Your task to perform on an android device: View the shopping cart on bestbuy.com. Add "razer blade" to the cart on bestbuy.com Image 0: 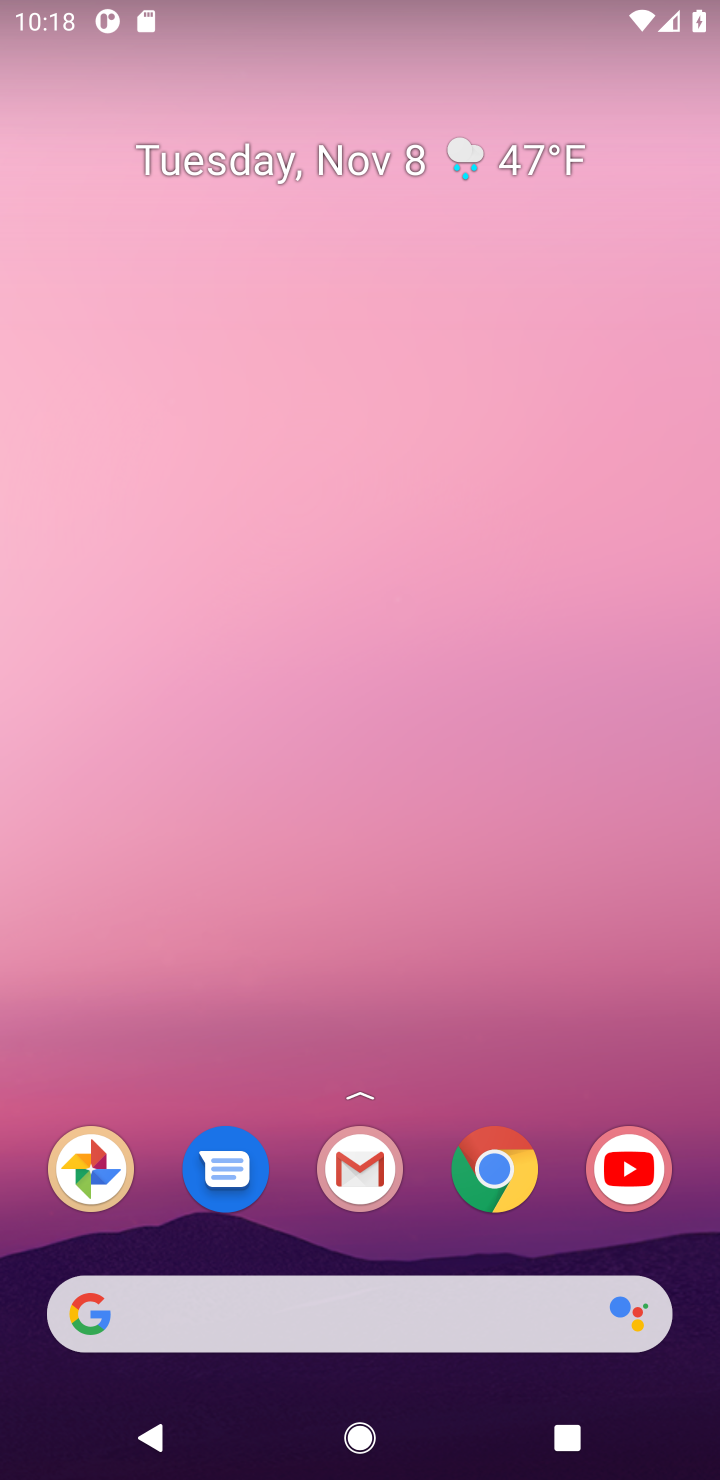
Step 0: click (485, 1164)
Your task to perform on an android device: View the shopping cart on bestbuy.com. Add "razer blade" to the cart on bestbuy.com Image 1: 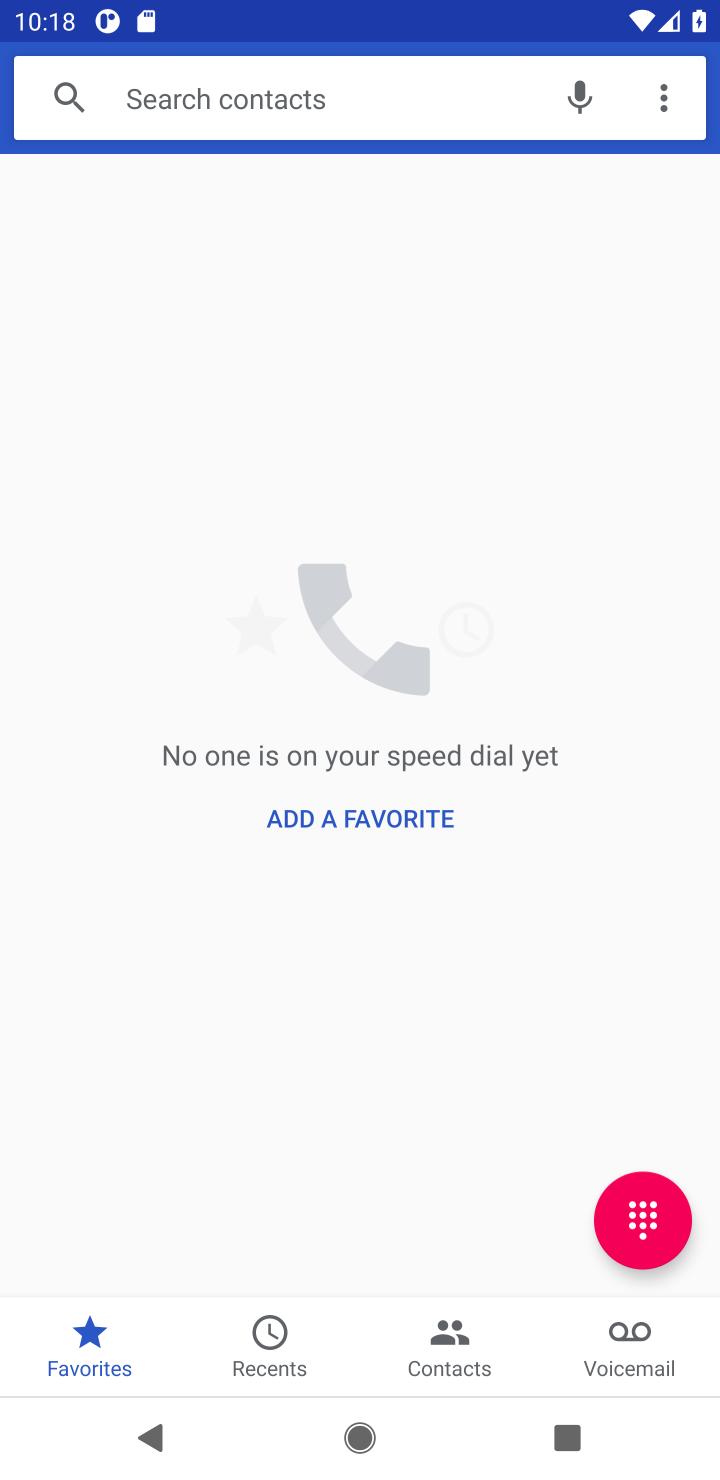
Step 1: press home button
Your task to perform on an android device: View the shopping cart on bestbuy.com. Add "razer blade" to the cart on bestbuy.com Image 2: 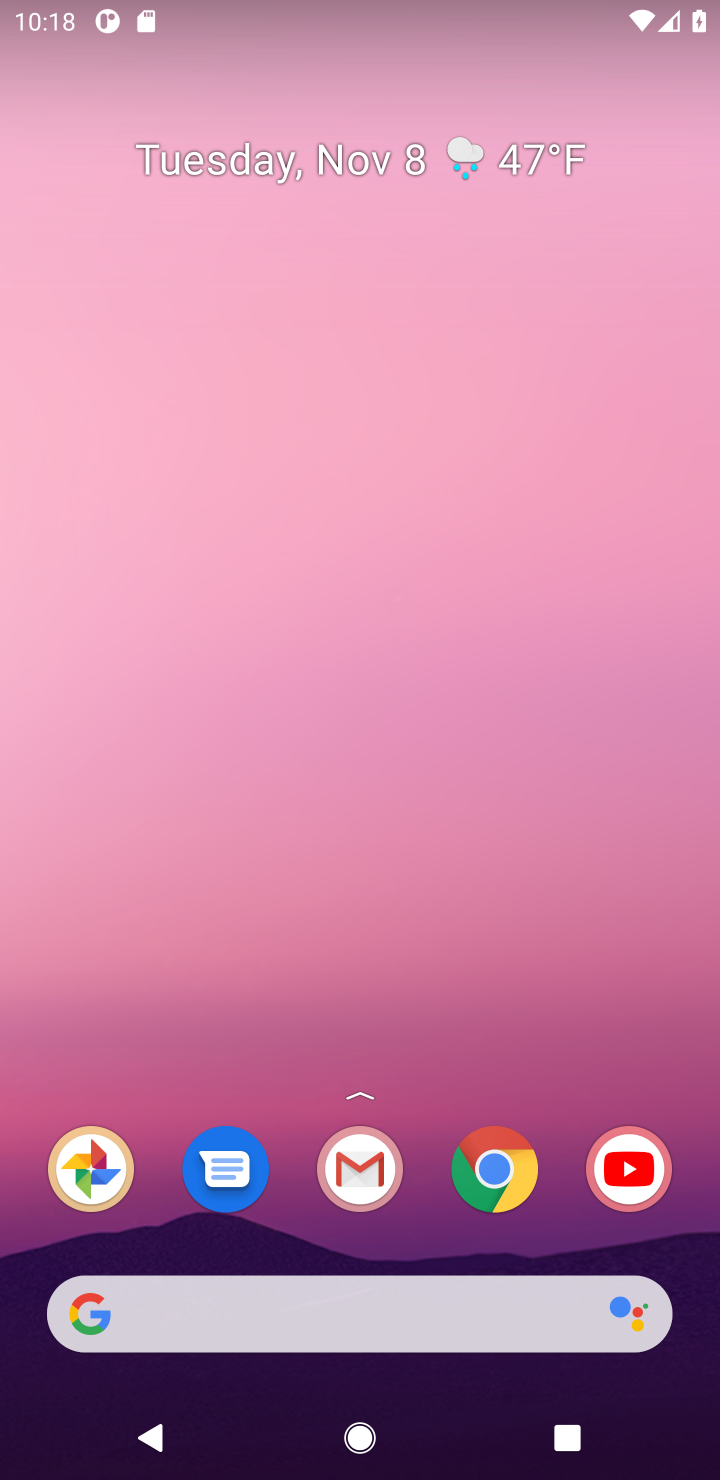
Step 2: click (498, 1154)
Your task to perform on an android device: View the shopping cart on bestbuy.com. Add "razer blade" to the cart on bestbuy.com Image 3: 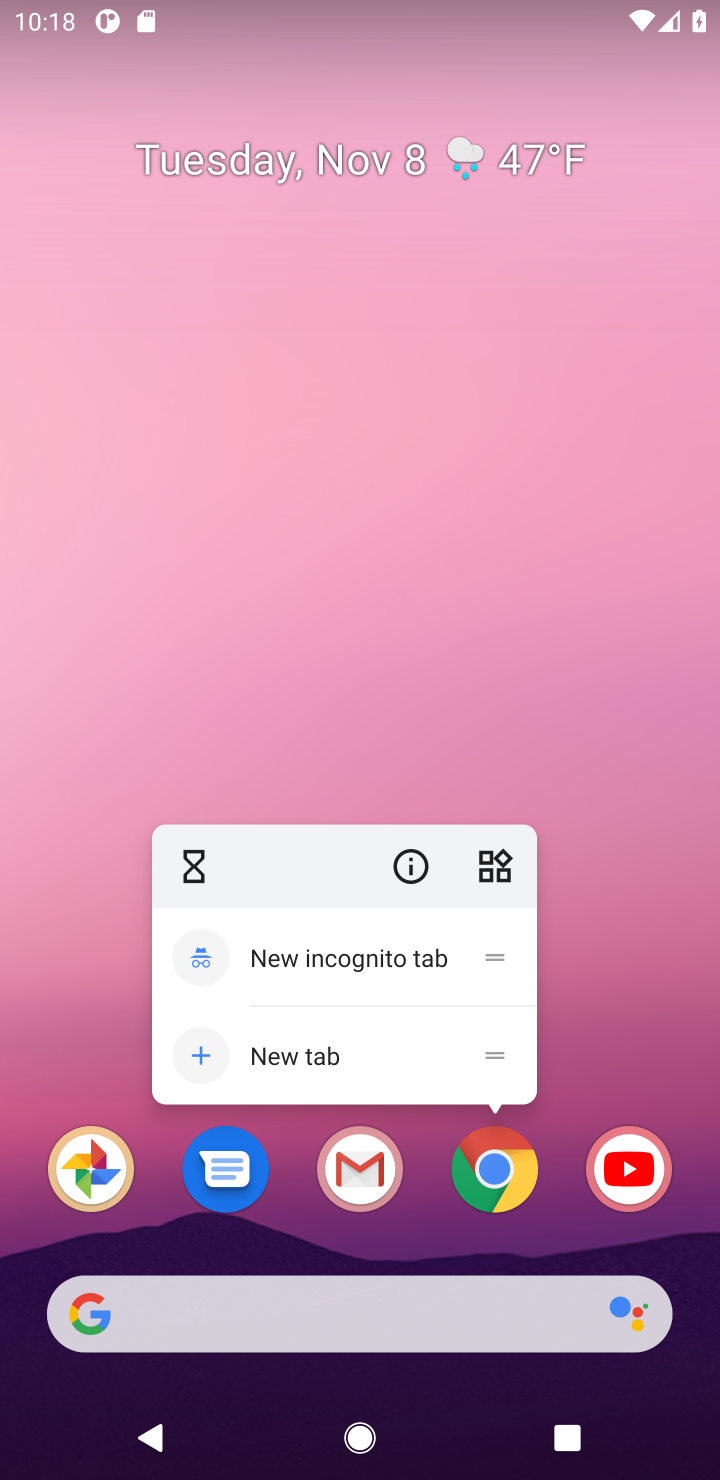
Step 3: click (498, 1154)
Your task to perform on an android device: View the shopping cart on bestbuy.com. Add "razer blade" to the cart on bestbuy.com Image 4: 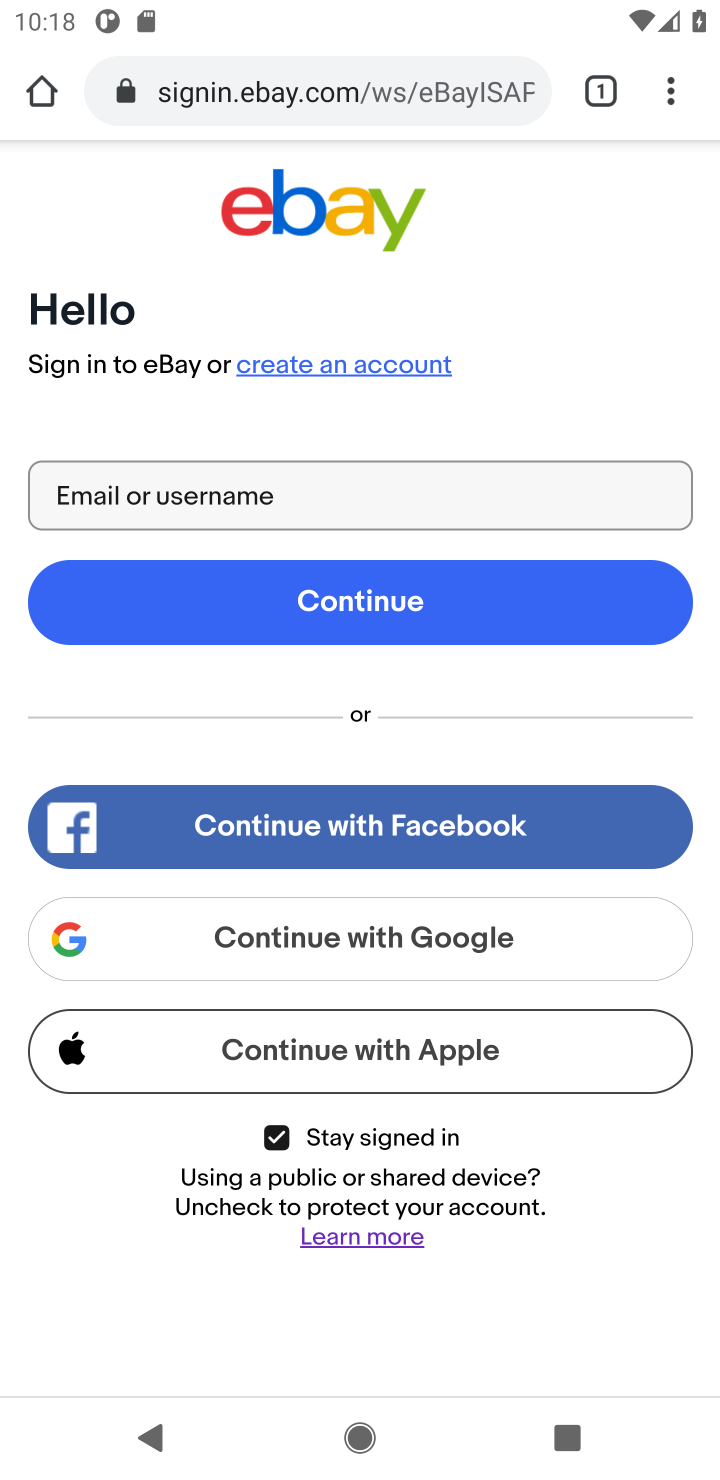
Step 4: click (287, 97)
Your task to perform on an android device: View the shopping cart on bestbuy.com. Add "razer blade" to the cart on bestbuy.com Image 5: 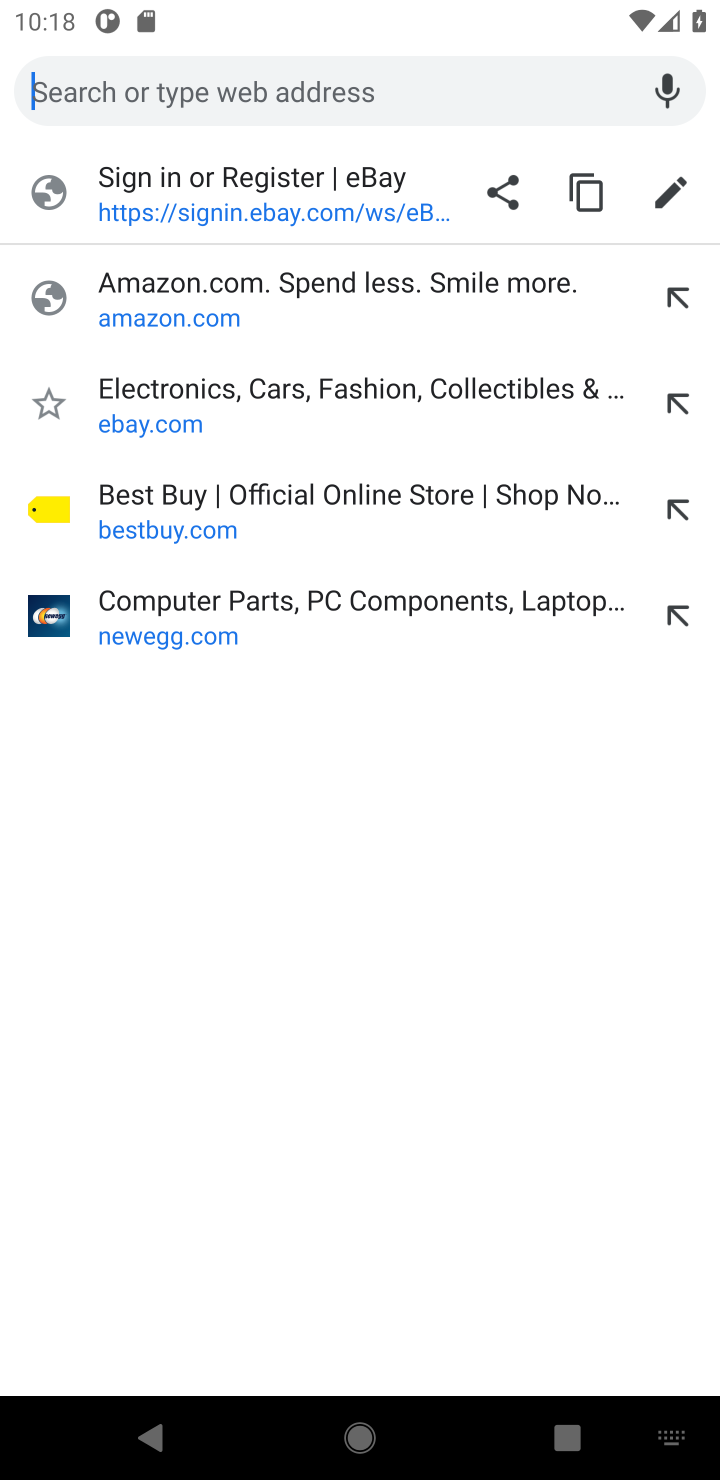
Step 5: type "bestbuy.com"
Your task to perform on an android device: View the shopping cart on bestbuy.com. Add "razer blade" to the cart on bestbuy.com Image 6: 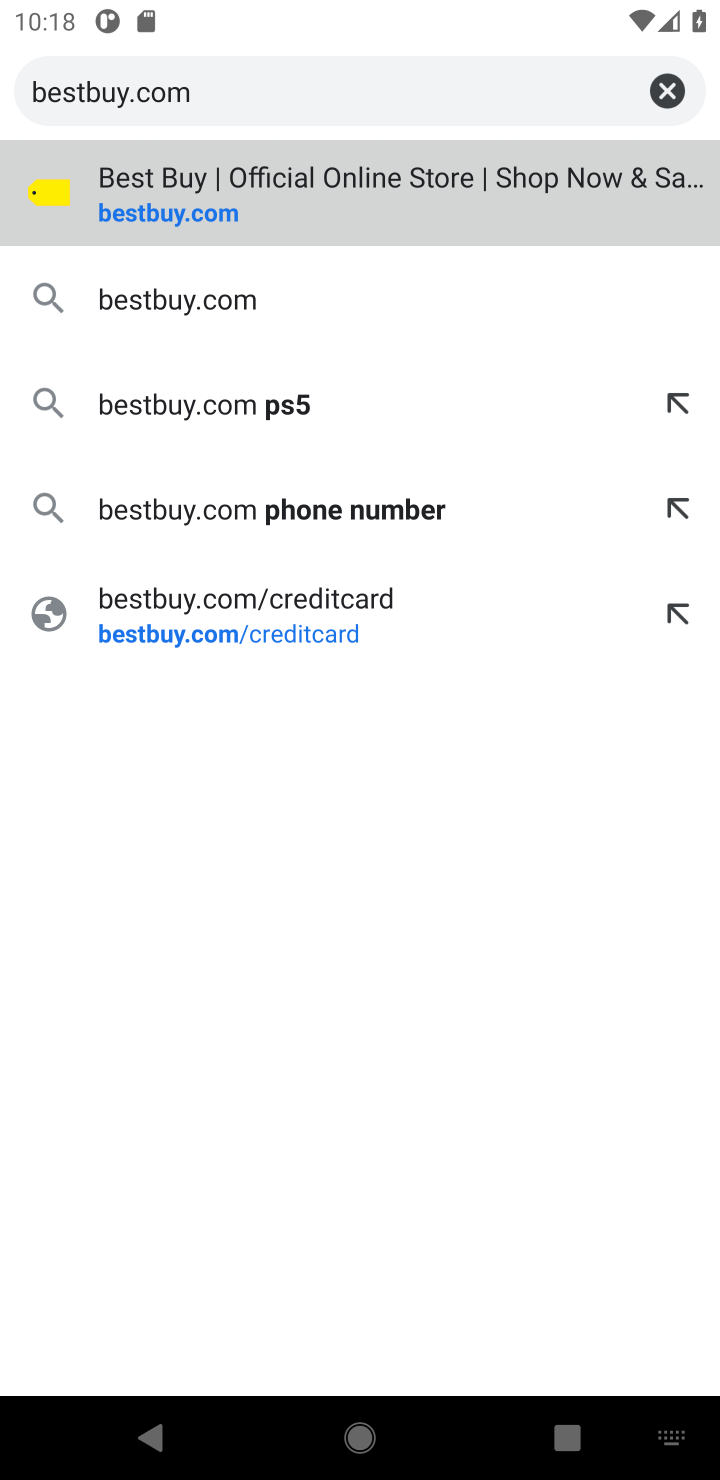
Step 6: press enter
Your task to perform on an android device: View the shopping cart on bestbuy.com. Add "razer blade" to the cart on bestbuy.com Image 7: 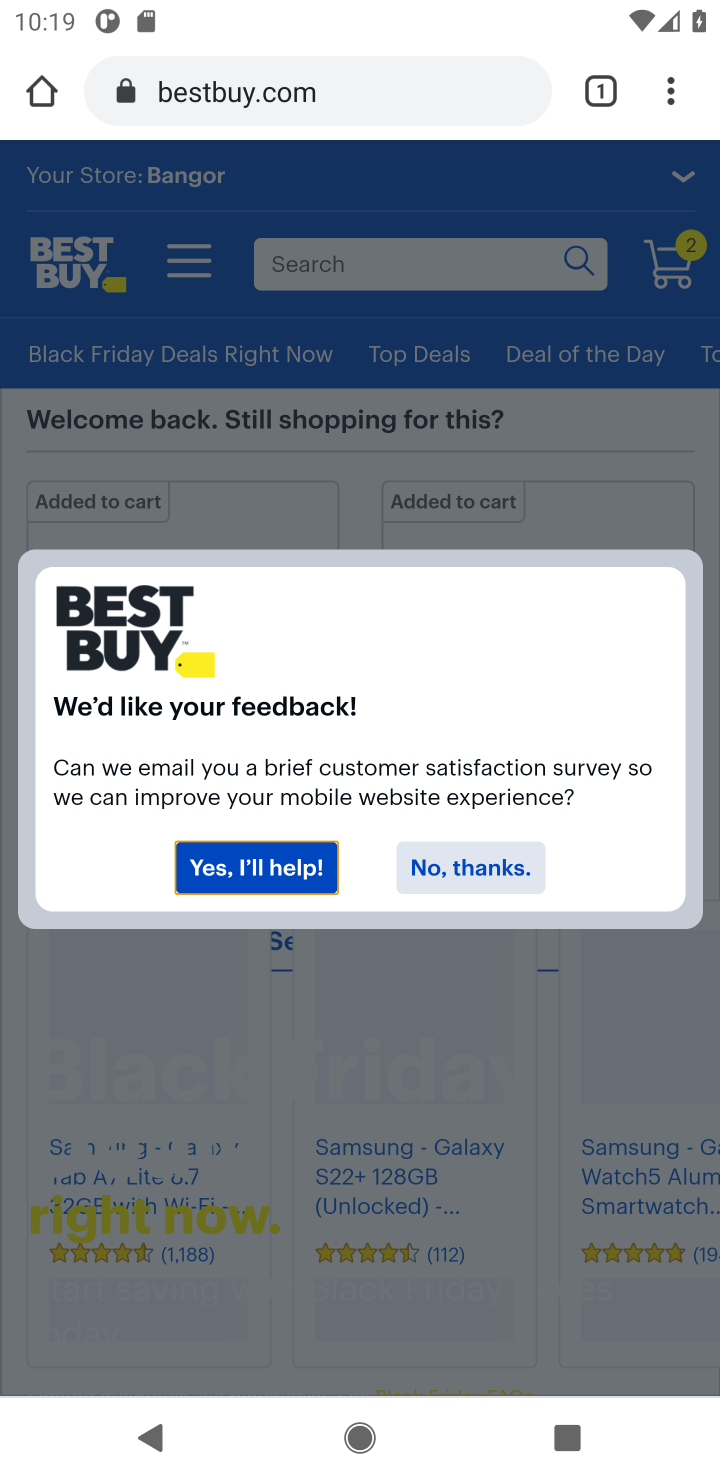
Step 7: click (459, 880)
Your task to perform on an android device: View the shopping cart on bestbuy.com. Add "razer blade" to the cart on bestbuy.com Image 8: 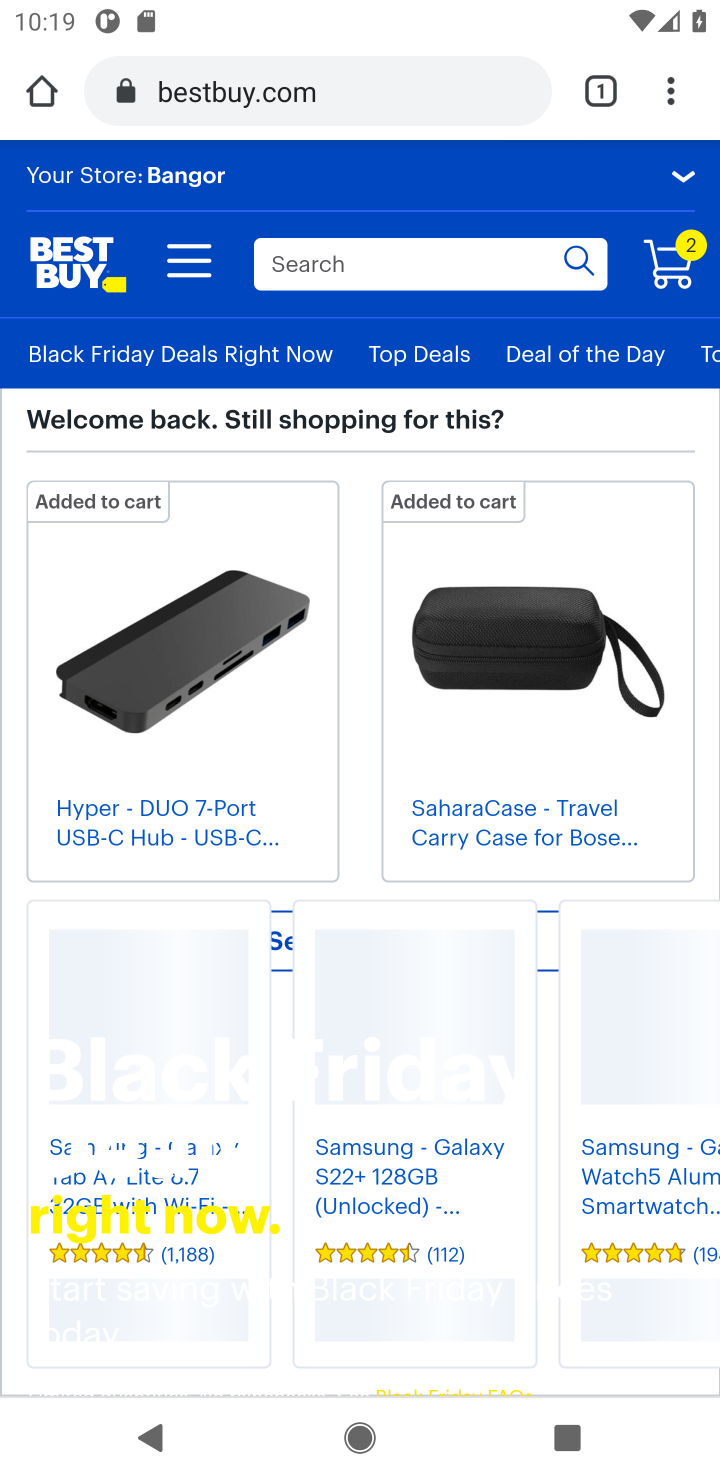
Step 8: click (473, 855)
Your task to perform on an android device: View the shopping cart on bestbuy.com. Add "razer blade" to the cart on bestbuy.com Image 9: 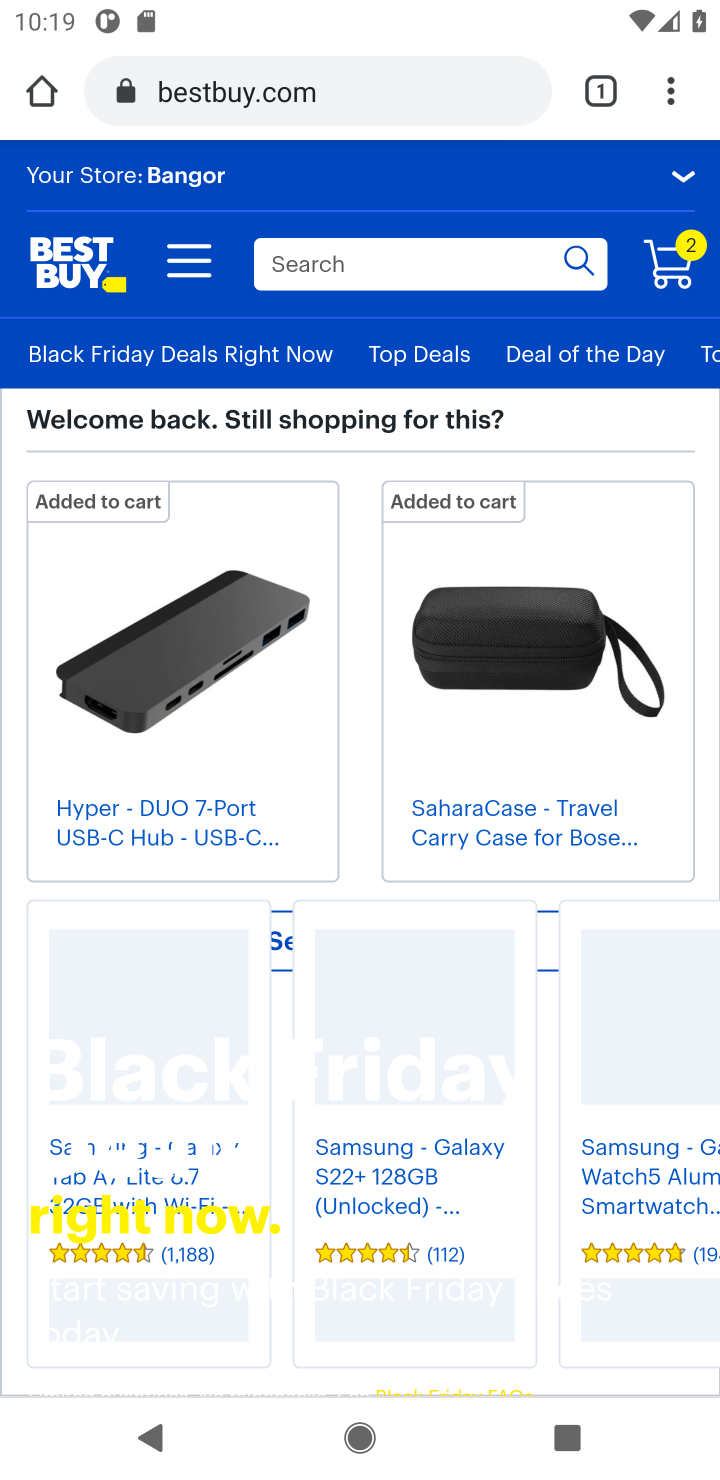
Step 9: click (340, 279)
Your task to perform on an android device: View the shopping cart on bestbuy.com. Add "razer blade" to the cart on bestbuy.com Image 10: 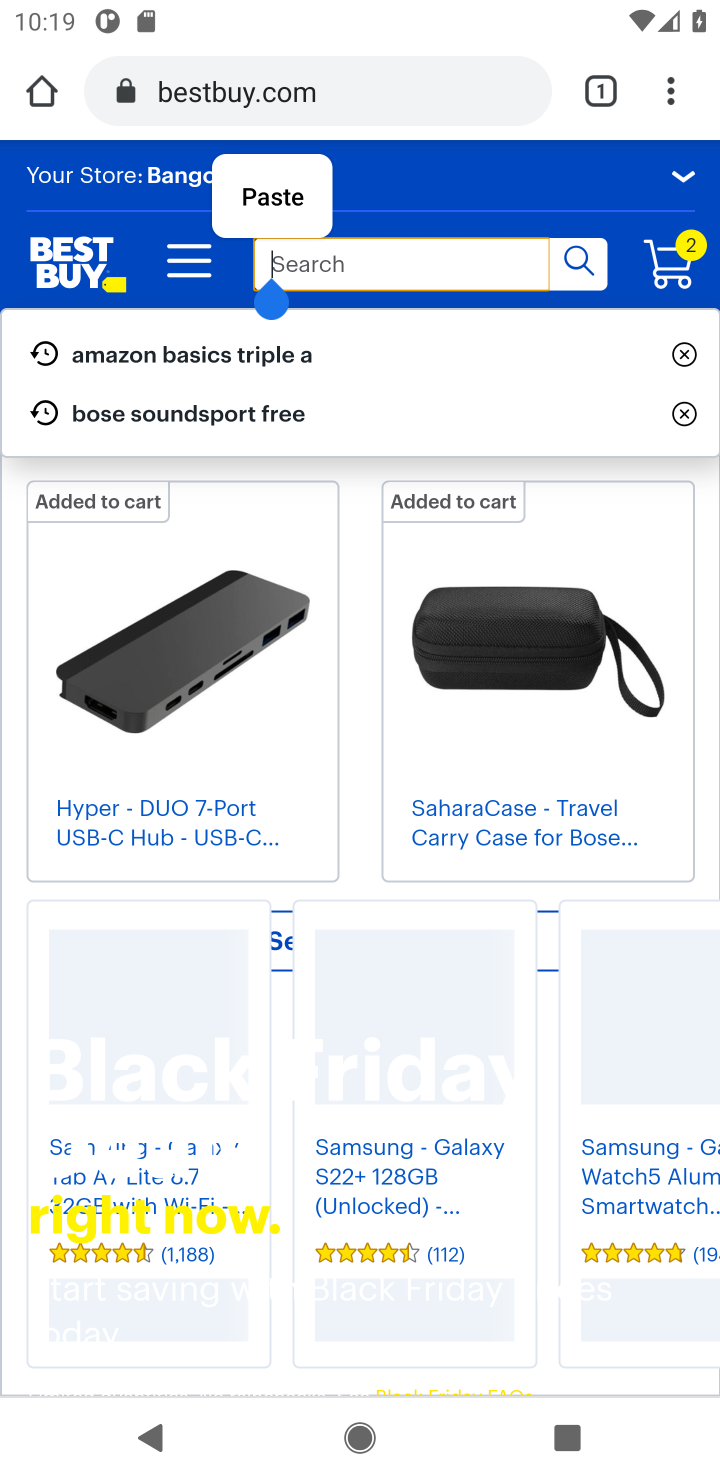
Step 10: type "razer blade"
Your task to perform on an android device: View the shopping cart on bestbuy.com. Add "razer blade" to the cart on bestbuy.com Image 11: 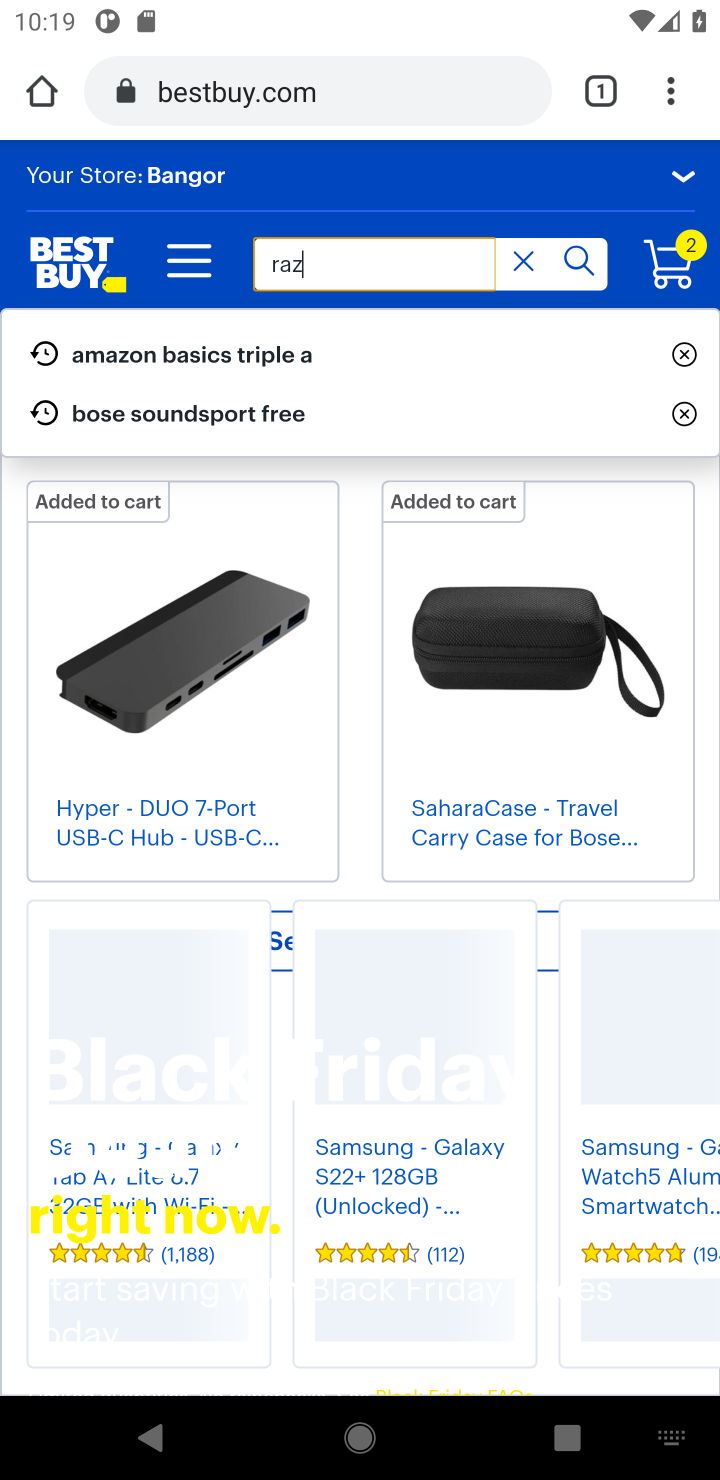
Step 11: press enter
Your task to perform on an android device: View the shopping cart on bestbuy.com. Add "razer blade" to the cart on bestbuy.com Image 12: 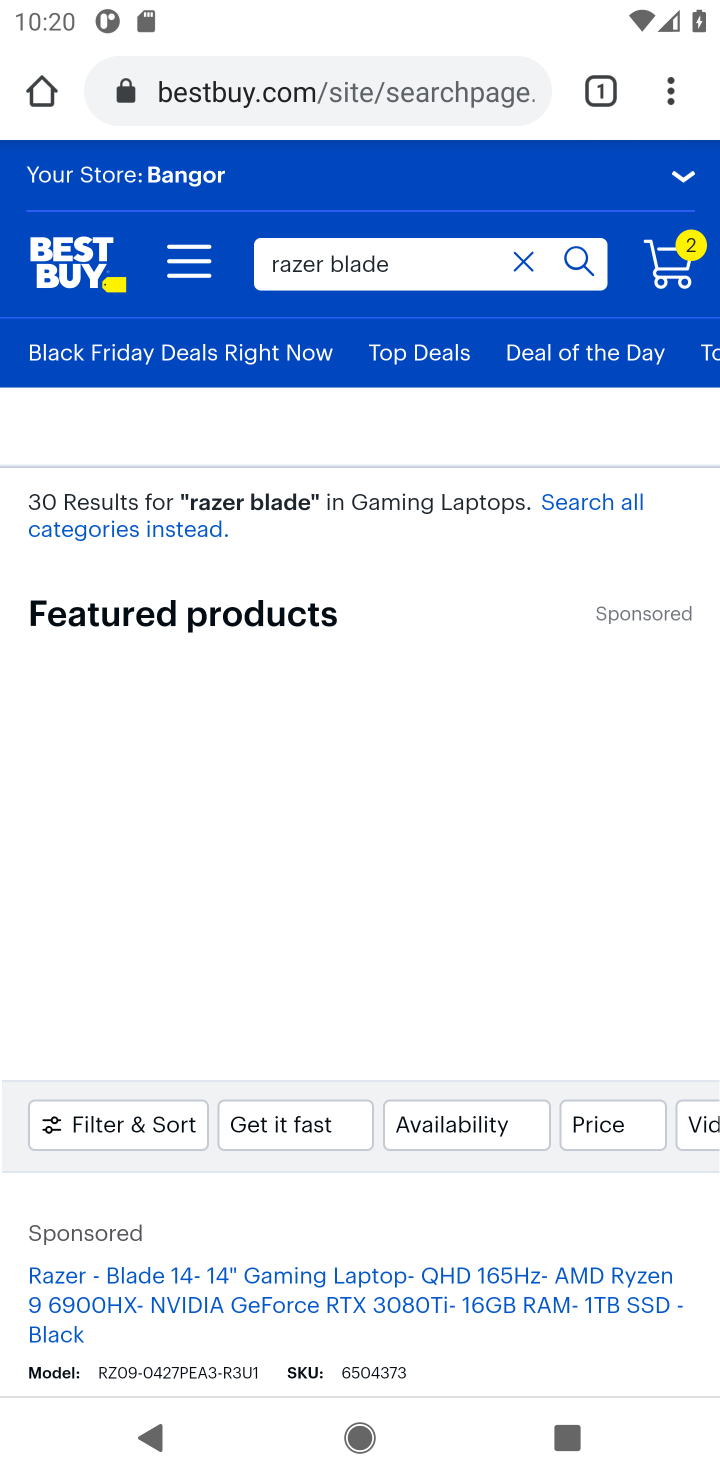
Step 12: drag from (341, 1190) to (425, 565)
Your task to perform on an android device: View the shopping cart on bestbuy.com. Add "razer blade" to the cart on bestbuy.com Image 13: 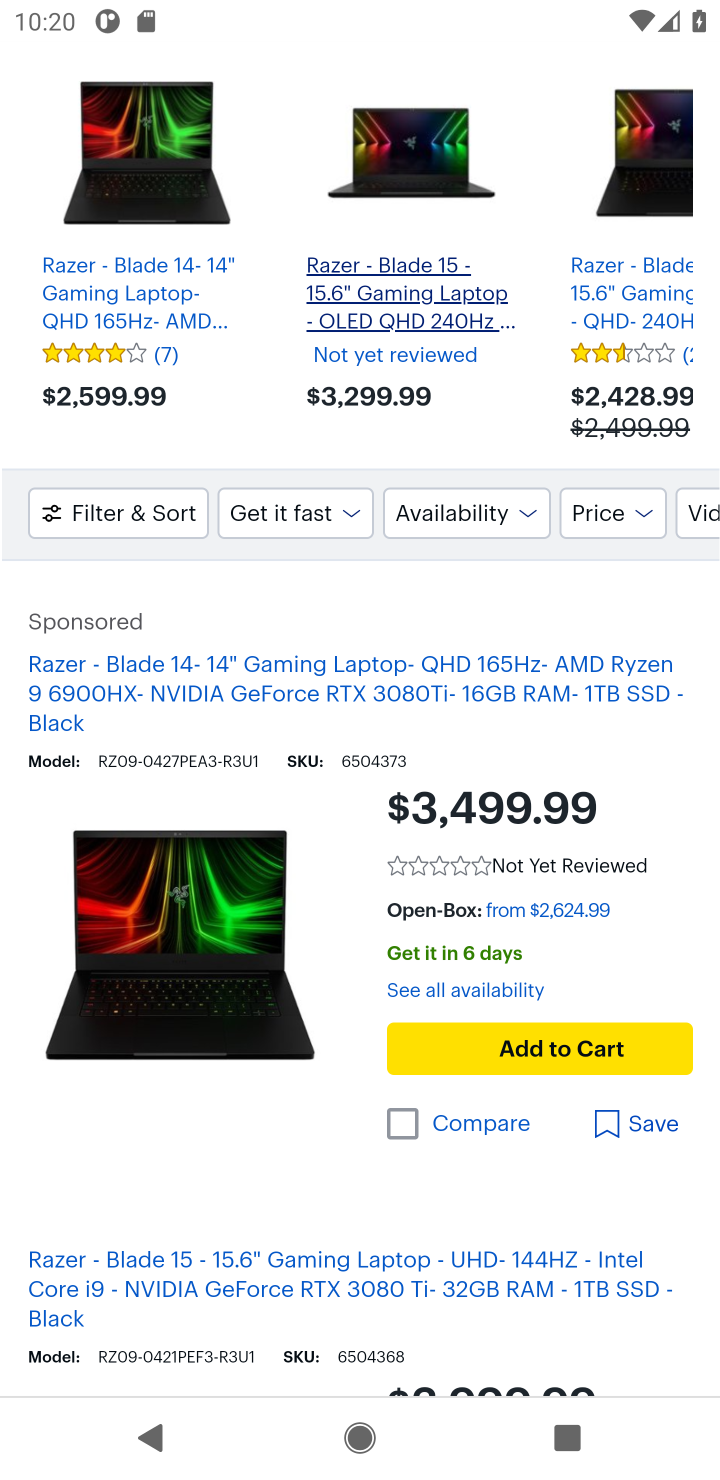
Step 13: click (170, 994)
Your task to perform on an android device: View the shopping cart on bestbuy.com. Add "razer blade" to the cart on bestbuy.com Image 14: 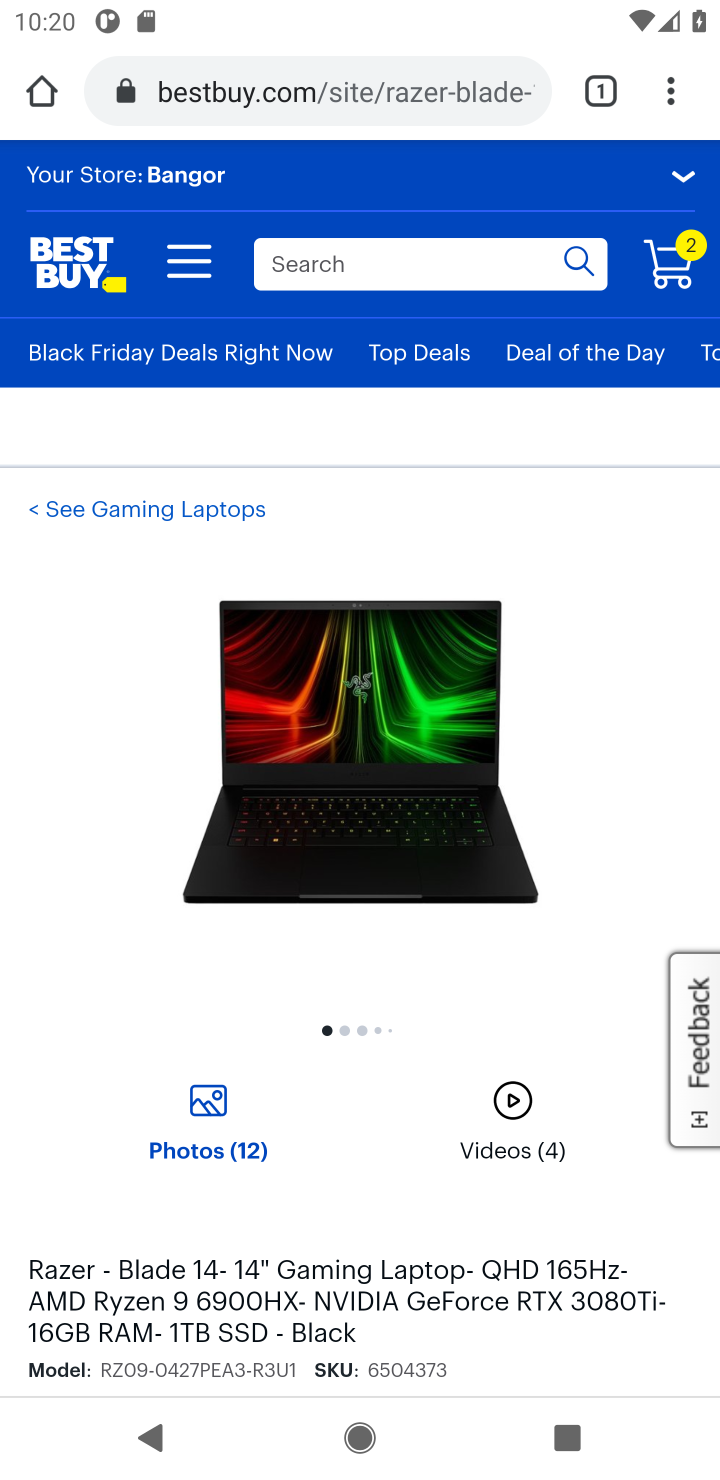
Step 14: drag from (364, 1186) to (348, 429)
Your task to perform on an android device: View the shopping cart on bestbuy.com. Add "razer blade" to the cart on bestbuy.com Image 15: 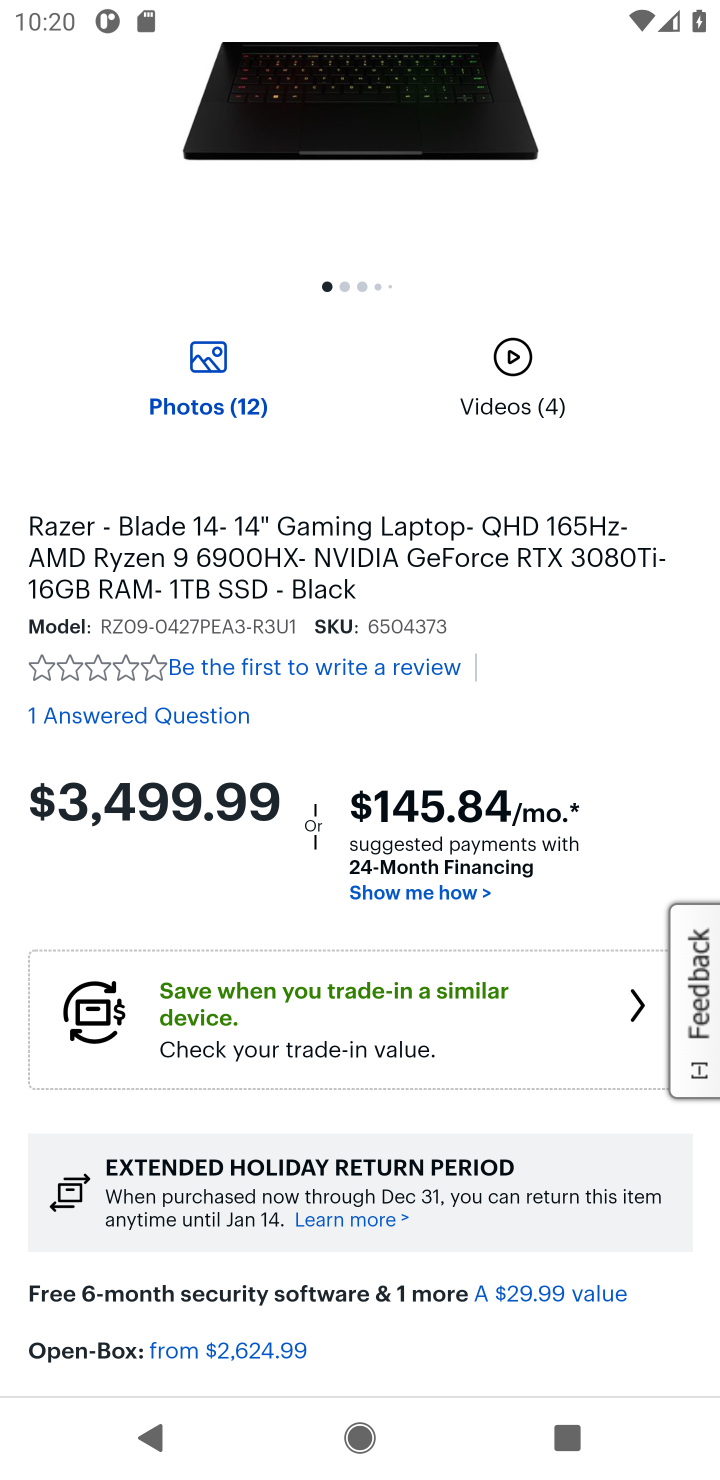
Step 15: drag from (559, 1199) to (535, 517)
Your task to perform on an android device: View the shopping cart on bestbuy.com. Add "razer blade" to the cart on bestbuy.com Image 16: 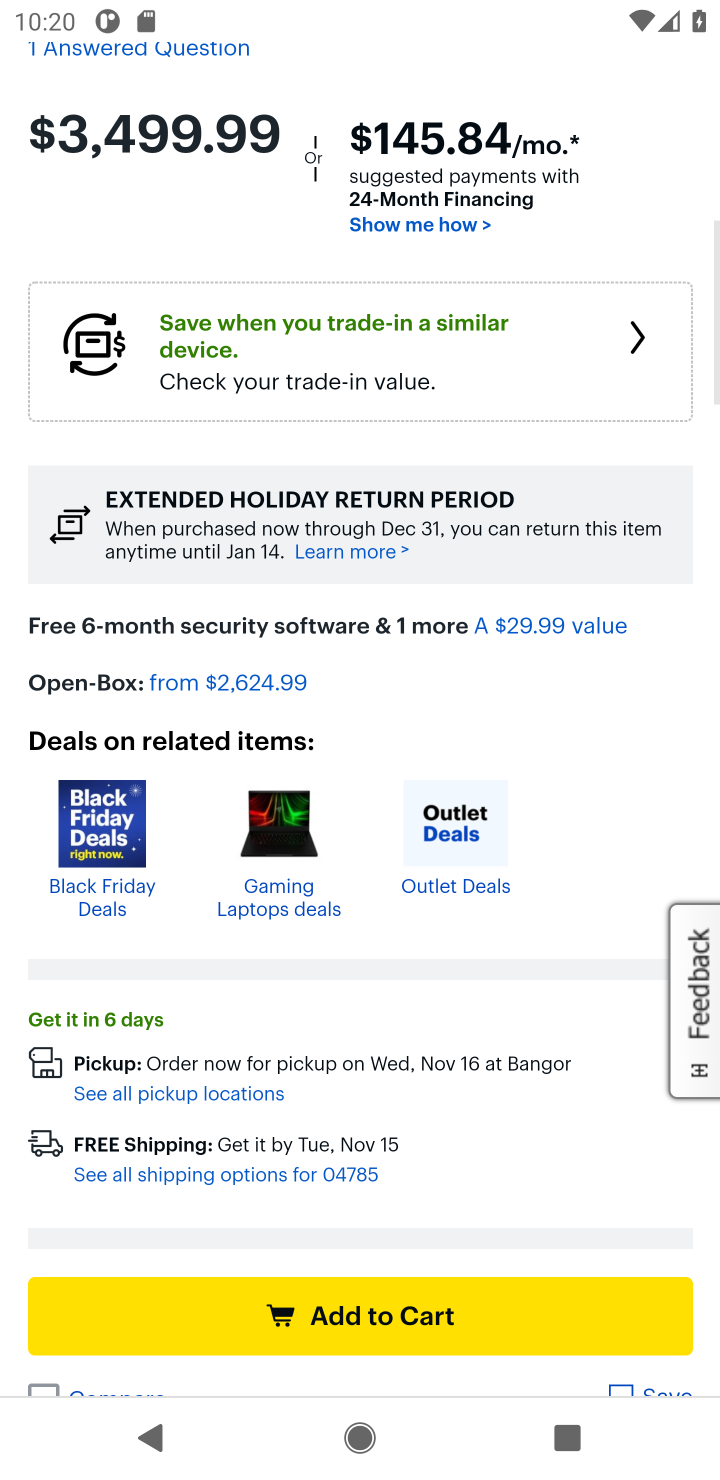
Step 16: drag from (618, 1118) to (533, 461)
Your task to perform on an android device: View the shopping cart on bestbuy.com. Add "razer blade" to the cart on bestbuy.com Image 17: 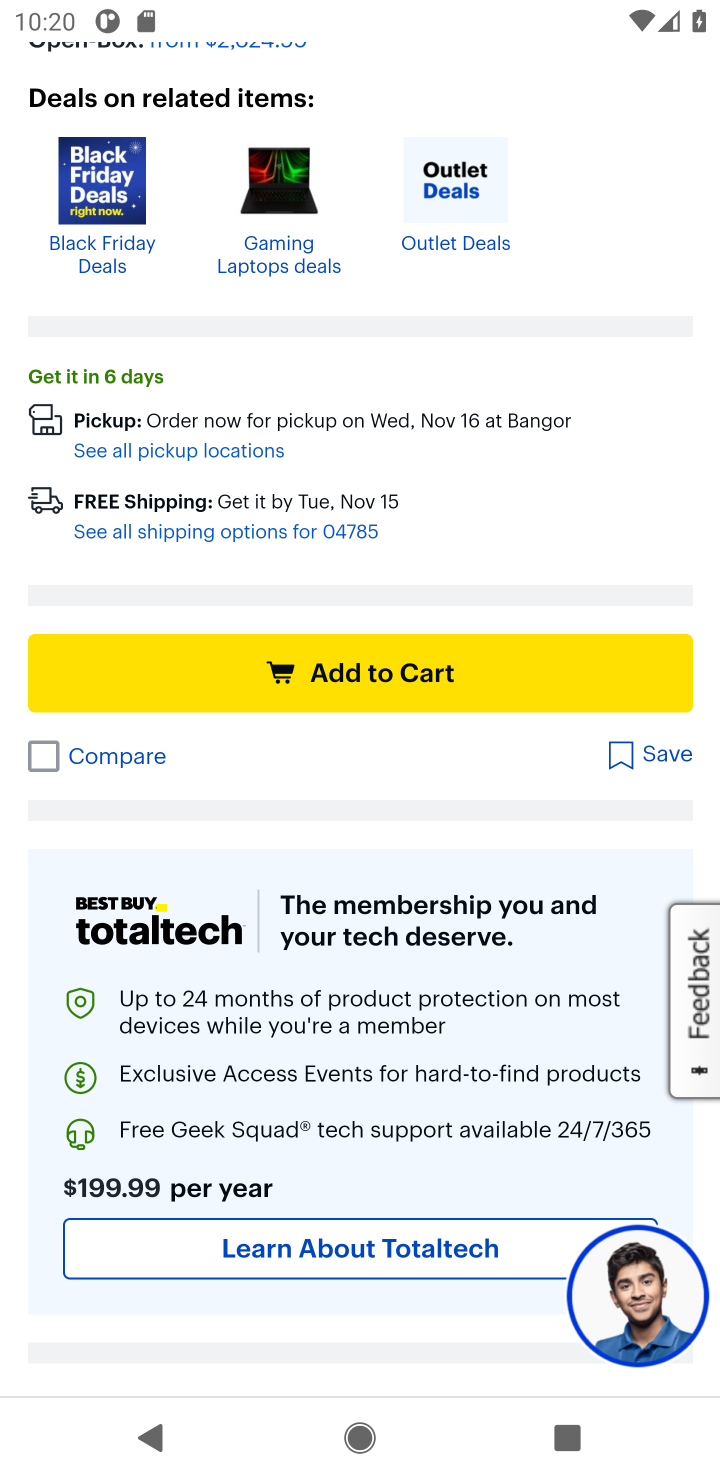
Step 17: click (406, 680)
Your task to perform on an android device: View the shopping cart on bestbuy.com. Add "razer blade" to the cart on bestbuy.com Image 18: 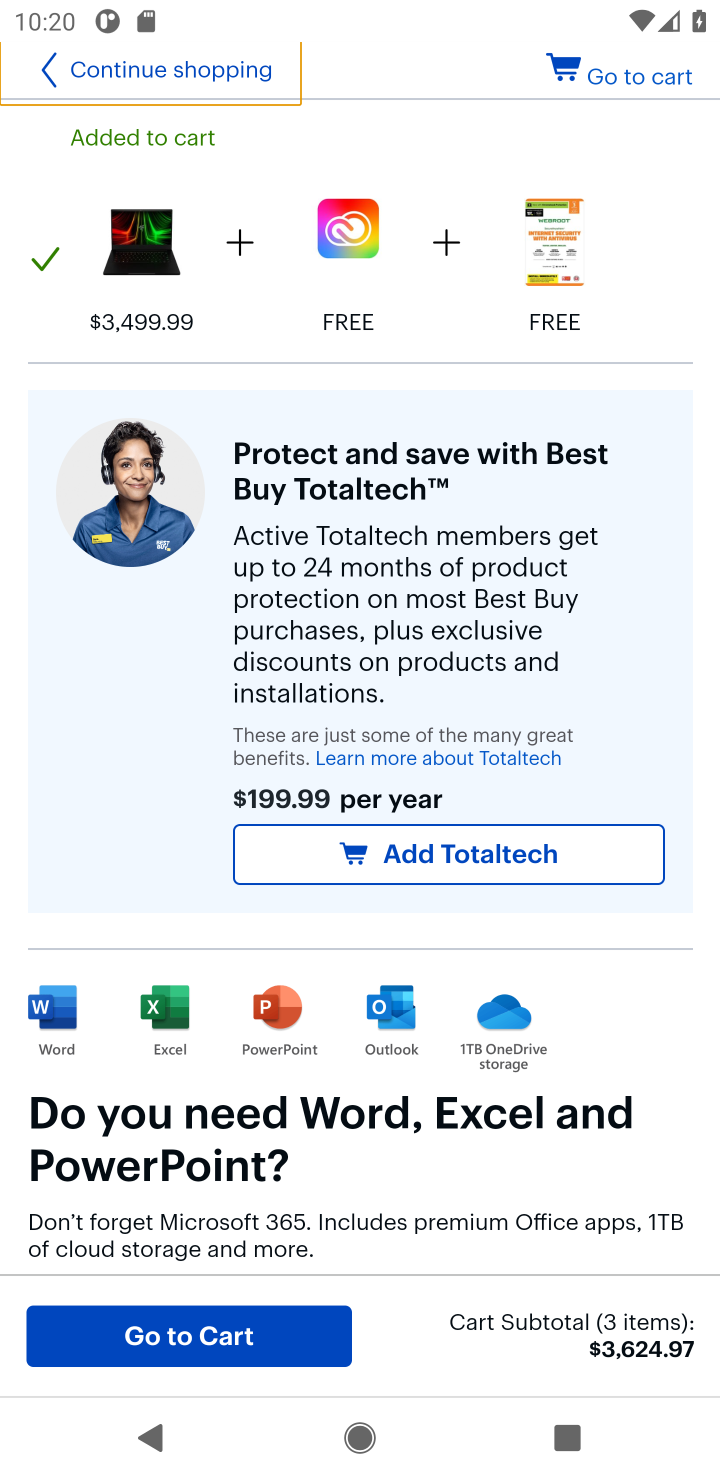
Step 18: task complete